Your task to perform on an android device: change the clock display to digital Image 0: 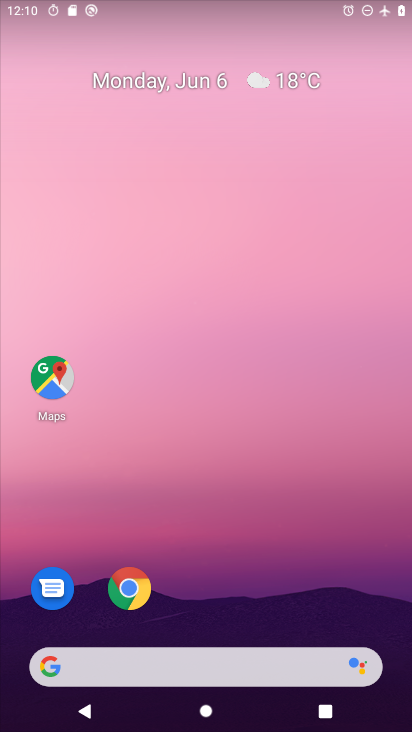
Step 0: drag from (347, 462) to (354, 217)
Your task to perform on an android device: change the clock display to digital Image 1: 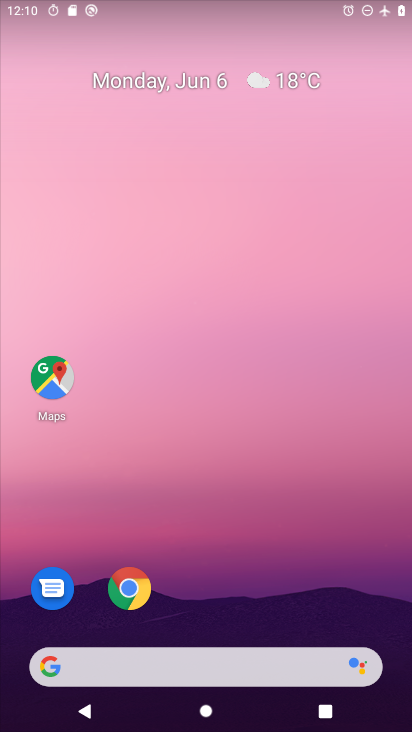
Step 1: drag from (346, 609) to (356, 163)
Your task to perform on an android device: change the clock display to digital Image 2: 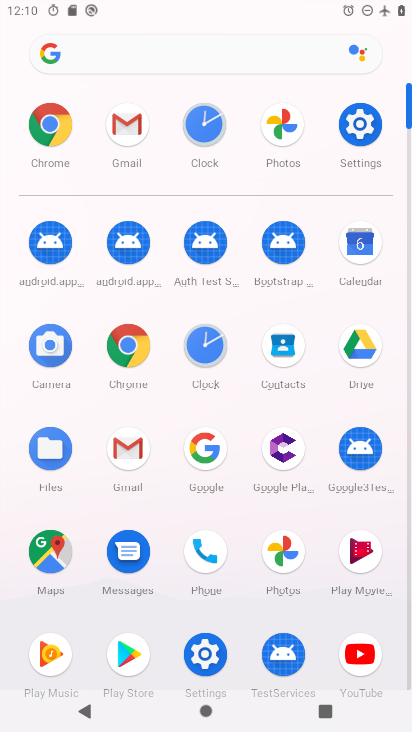
Step 2: click (201, 349)
Your task to perform on an android device: change the clock display to digital Image 3: 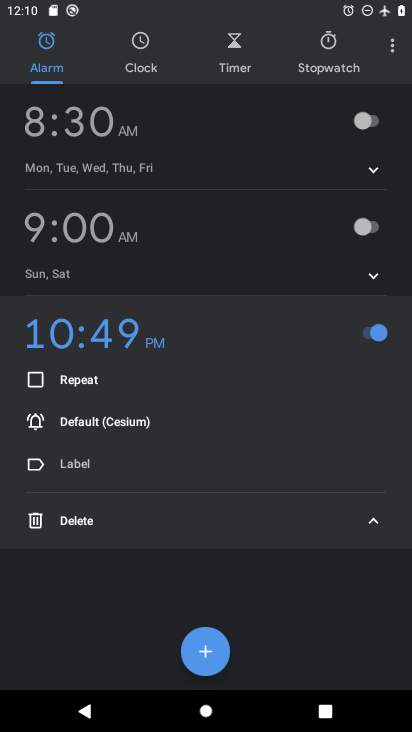
Step 3: click (393, 55)
Your task to perform on an android device: change the clock display to digital Image 4: 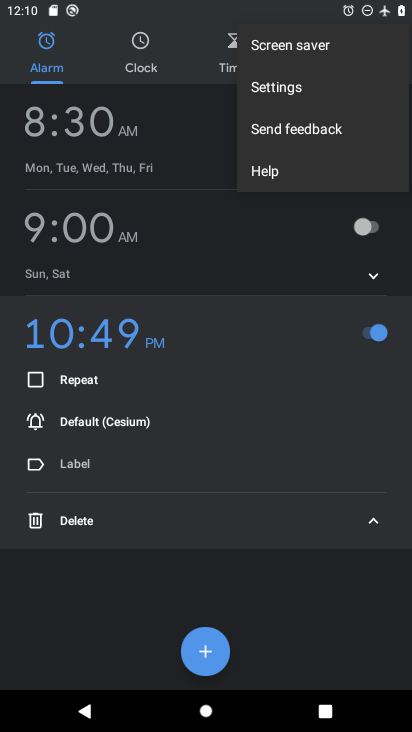
Step 4: click (321, 87)
Your task to perform on an android device: change the clock display to digital Image 5: 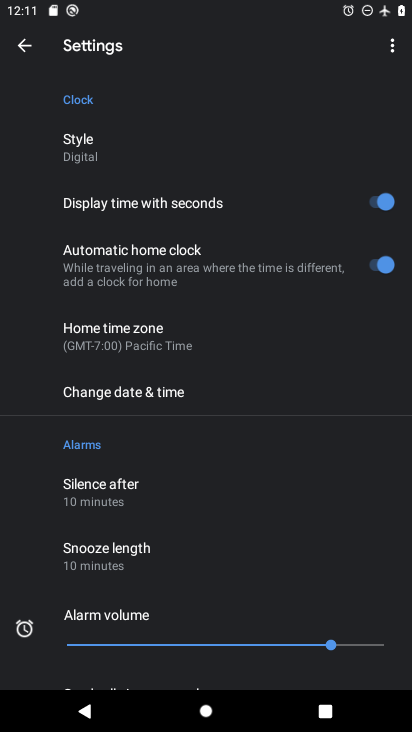
Step 5: task complete